Your task to perform on an android device: Open Chrome and go to settings Image 0: 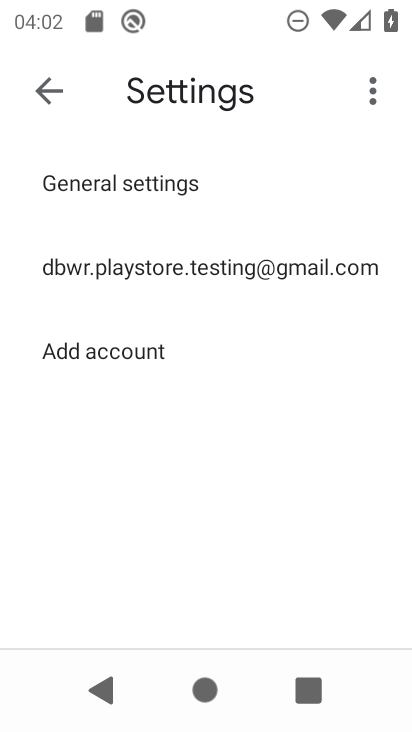
Step 0: press home button
Your task to perform on an android device: Open Chrome and go to settings Image 1: 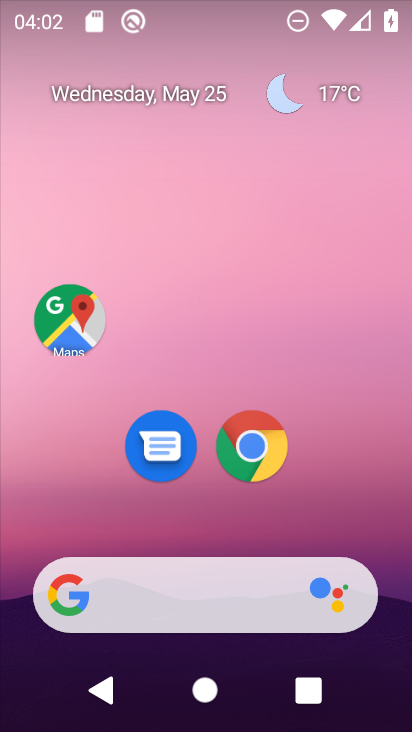
Step 1: click (236, 464)
Your task to perform on an android device: Open Chrome and go to settings Image 2: 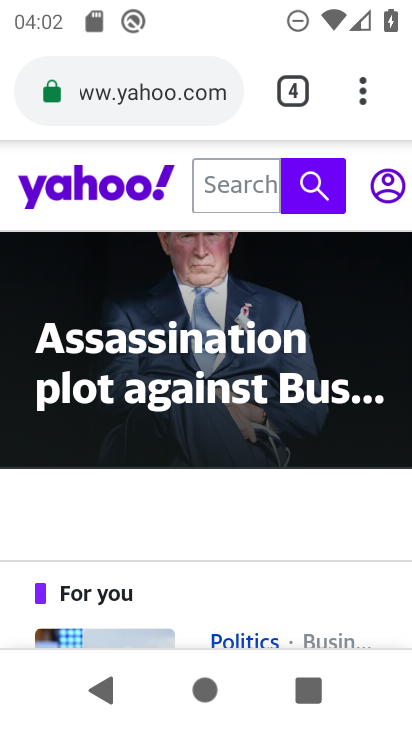
Step 2: task complete